Your task to perform on an android device: star an email in the gmail app Image 0: 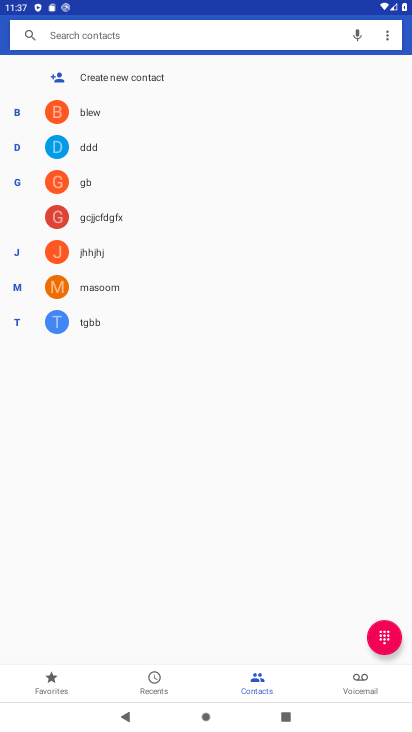
Step 0: press home button
Your task to perform on an android device: star an email in the gmail app Image 1: 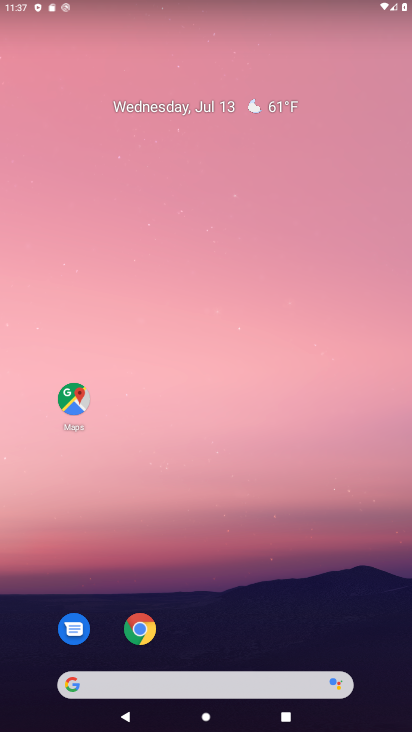
Step 1: drag from (212, 649) to (139, 103)
Your task to perform on an android device: star an email in the gmail app Image 2: 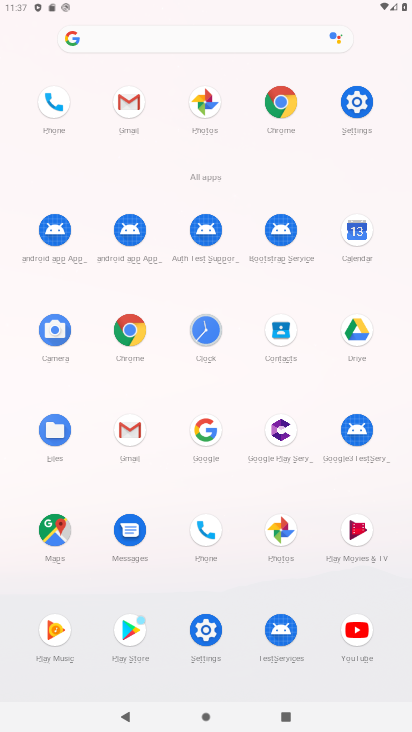
Step 2: click (143, 430)
Your task to perform on an android device: star an email in the gmail app Image 3: 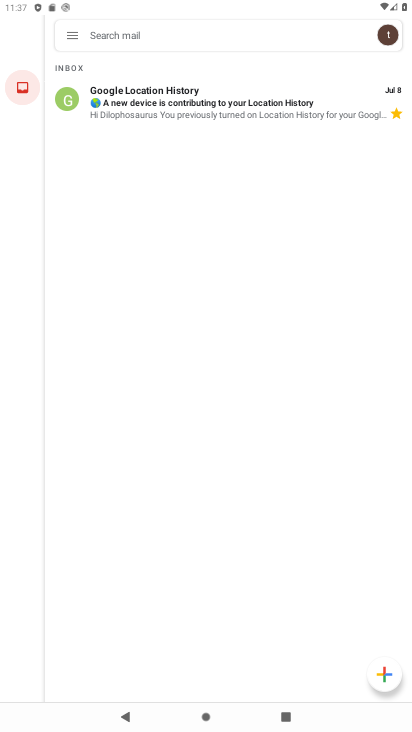
Step 3: task complete